Your task to perform on an android device: read, delete, or share a saved page in the chrome app Image 0: 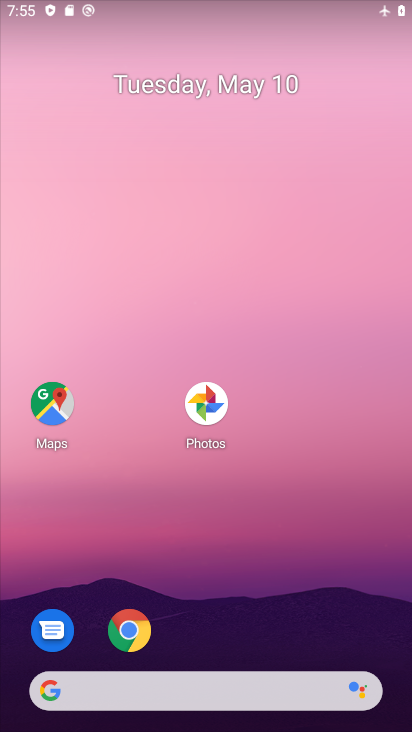
Step 0: click (146, 618)
Your task to perform on an android device: read, delete, or share a saved page in the chrome app Image 1: 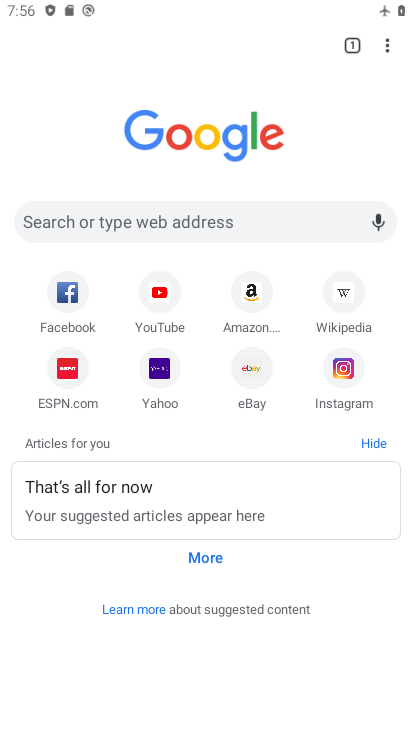
Step 1: click (382, 47)
Your task to perform on an android device: read, delete, or share a saved page in the chrome app Image 2: 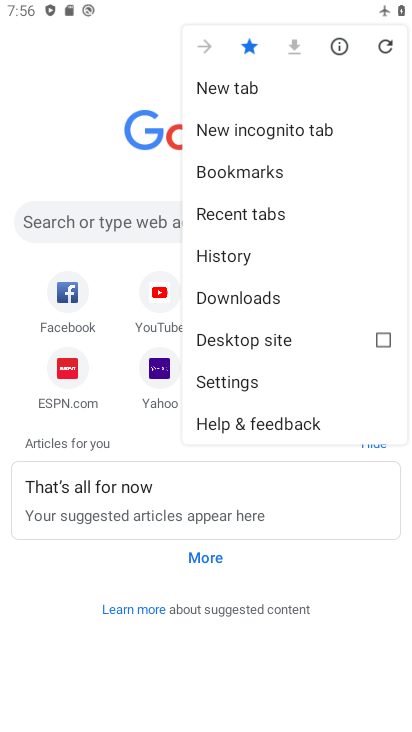
Step 2: click (283, 168)
Your task to perform on an android device: read, delete, or share a saved page in the chrome app Image 3: 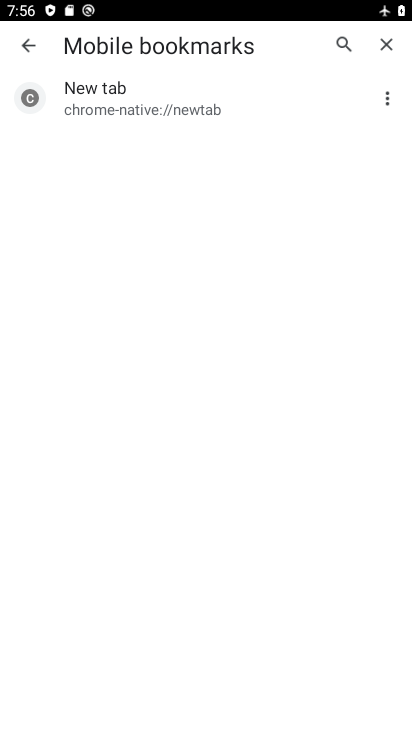
Step 3: click (15, 35)
Your task to perform on an android device: read, delete, or share a saved page in the chrome app Image 4: 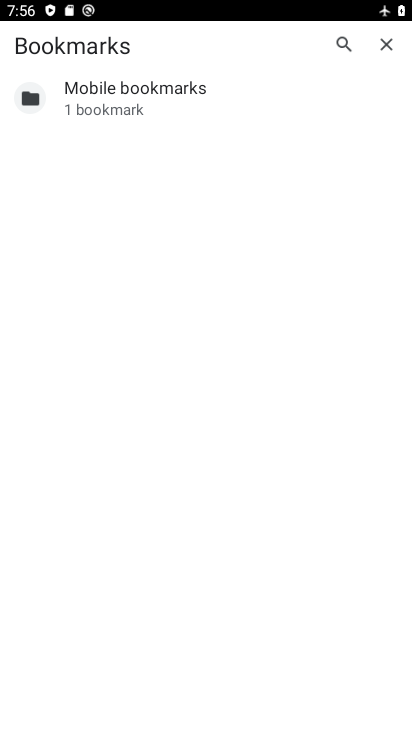
Step 4: click (395, 48)
Your task to perform on an android device: read, delete, or share a saved page in the chrome app Image 5: 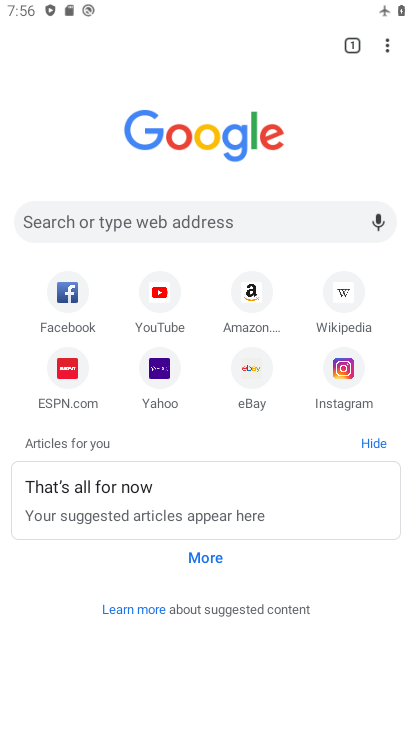
Step 5: click (386, 42)
Your task to perform on an android device: read, delete, or share a saved page in the chrome app Image 6: 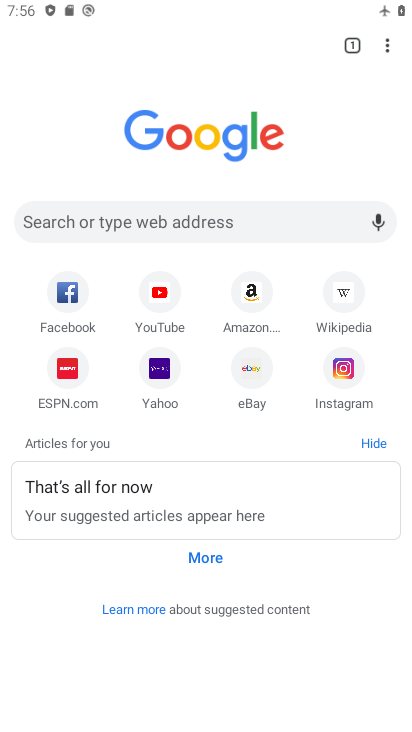
Step 6: task complete